Your task to perform on an android device: Open accessibility settings Image 0: 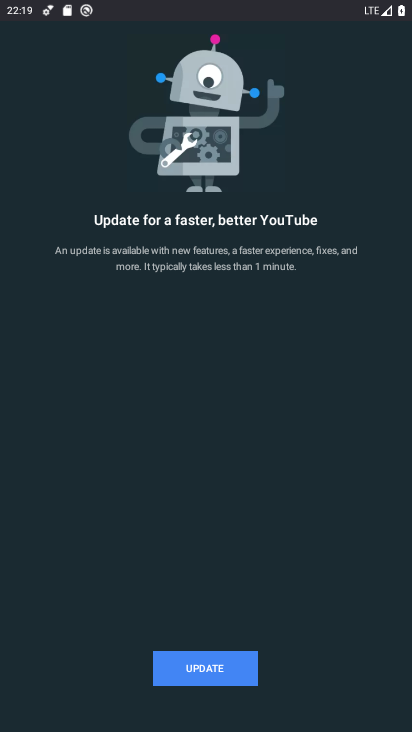
Step 0: press home button
Your task to perform on an android device: Open accessibility settings Image 1: 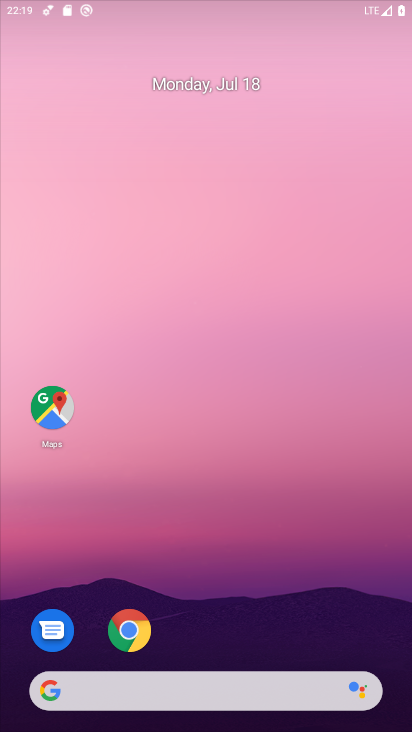
Step 1: drag from (256, 543) to (236, 201)
Your task to perform on an android device: Open accessibility settings Image 2: 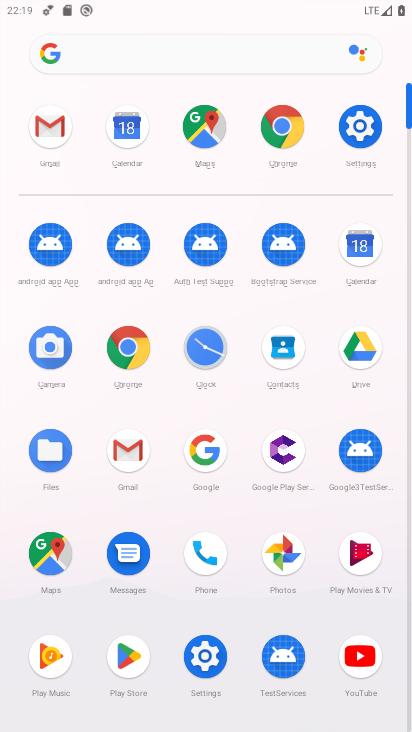
Step 2: click (363, 116)
Your task to perform on an android device: Open accessibility settings Image 3: 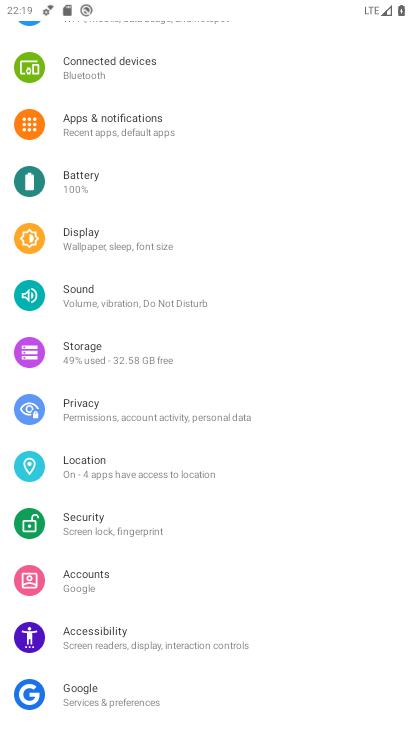
Step 3: click (101, 631)
Your task to perform on an android device: Open accessibility settings Image 4: 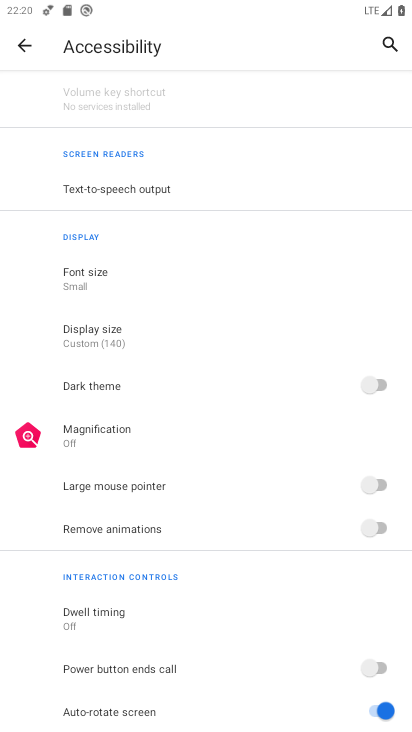
Step 4: task complete